Your task to perform on an android device: Go to Android settings Image 0: 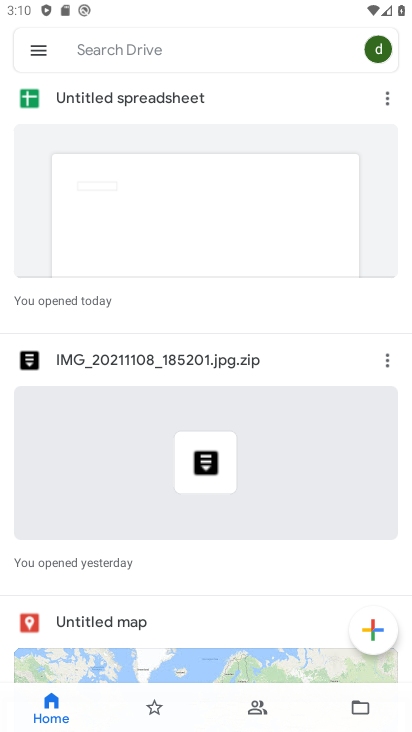
Step 0: press home button
Your task to perform on an android device: Go to Android settings Image 1: 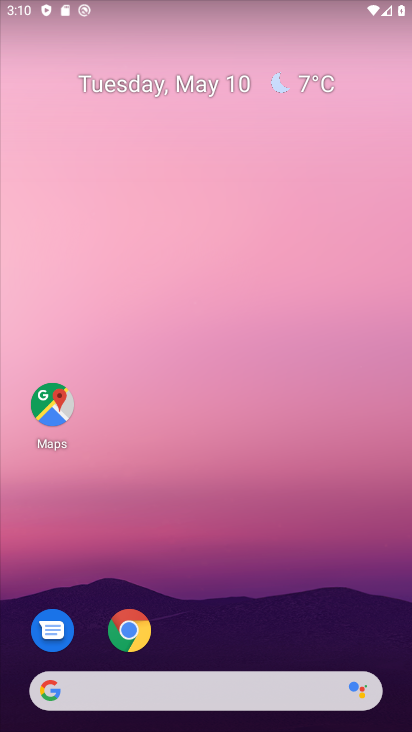
Step 1: drag from (230, 690) to (166, 111)
Your task to perform on an android device: Go to Android settings Image 2: 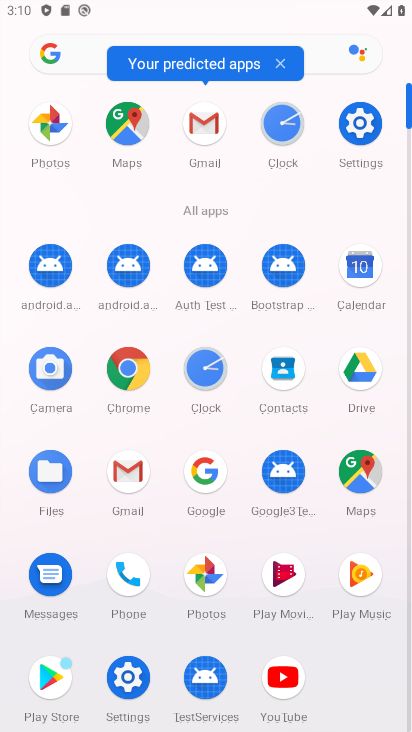
Step 2: click (355, 133)
Your task to perform on an android device: Go to Android settings Image 3: 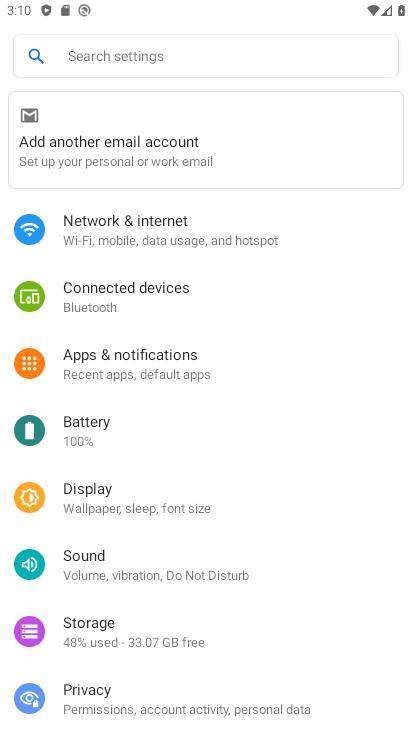
Step 3: drag from (275, 532) to (207, 53)
Your task to perform on an android device: Go to Android settings Image 4: 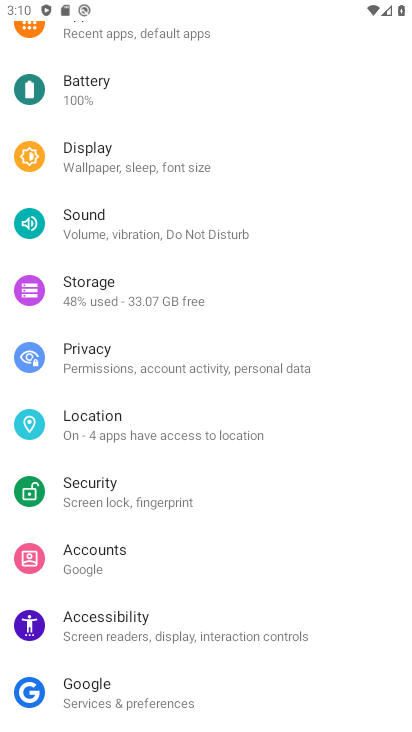
Step 4: drag from (217, 389) to (165, 191)
Your task to perform on an android device: Go to Android settings Image 5: 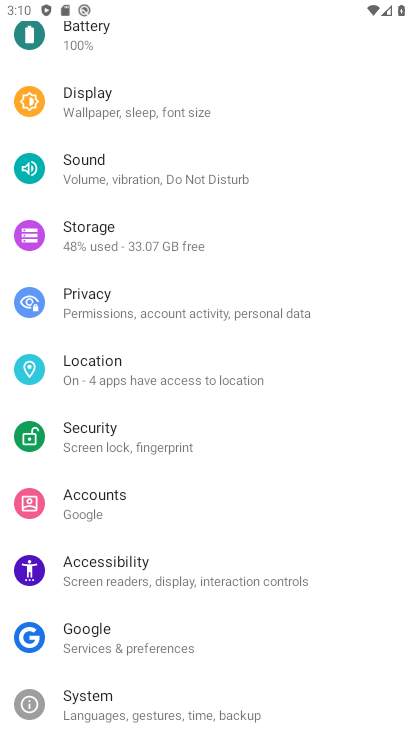
Step 5: drag from (137, 698) to (124, 230)
Your task to perform on an android device: Go to Android settings Image 6: 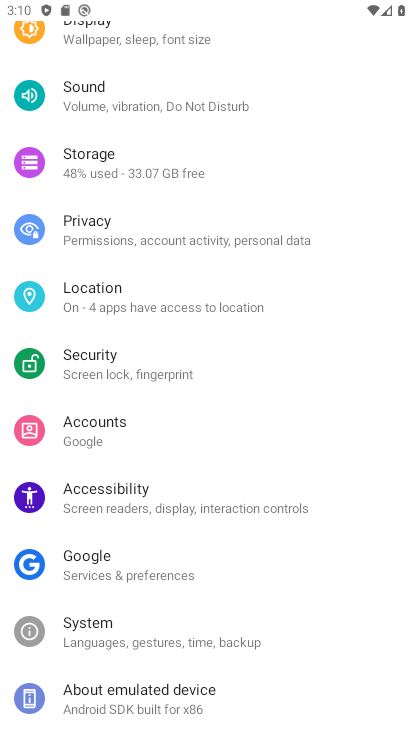
Step 6: click (104, 685)
Your task to perform on an android device: Go to Android settings Image 7: 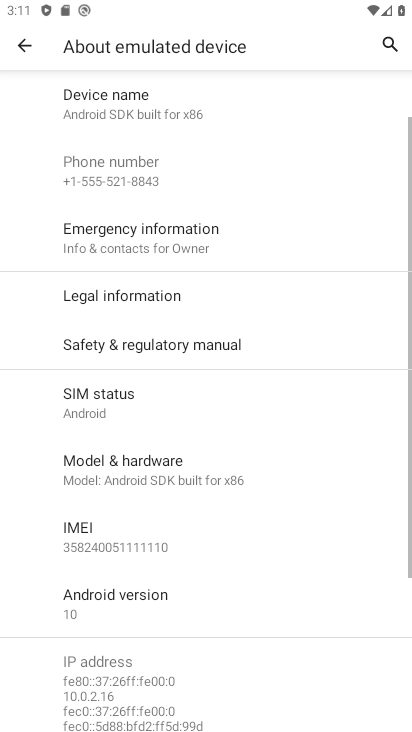
Step 7: task complete